Your task to perform on an android device: Open Youtube and go to the subscriptions tab Image 0: 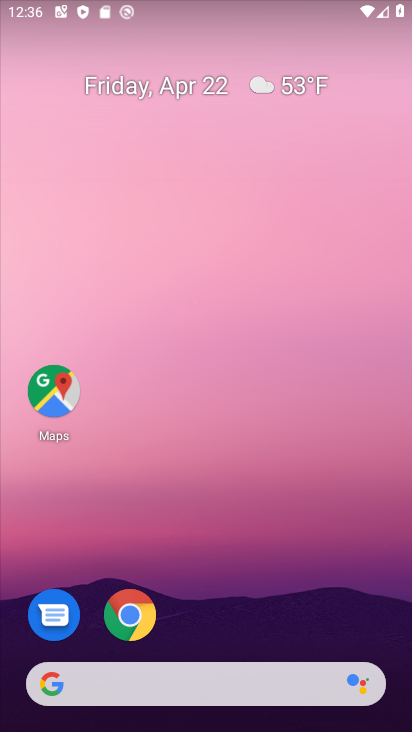
Step 0: drag from (363, 607) to (395, 164)
Your task to perform on an android device: Open Youtube and go to the subscriptions tab Image 1: 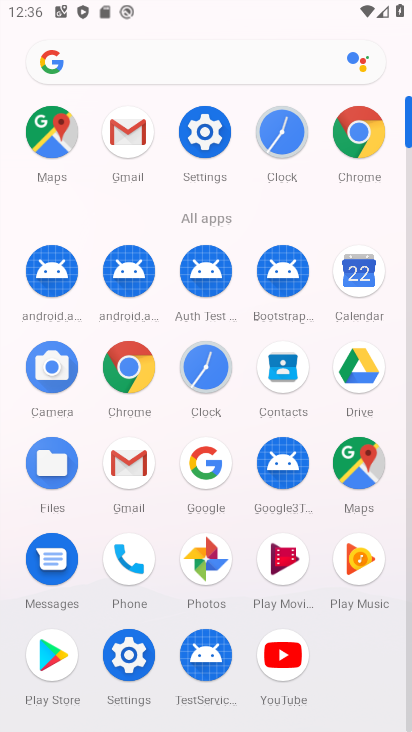
Step 1: click (286, 653)
Your task to perform on an android device: Open Youtube and go to the subscriptions tab Image 2: 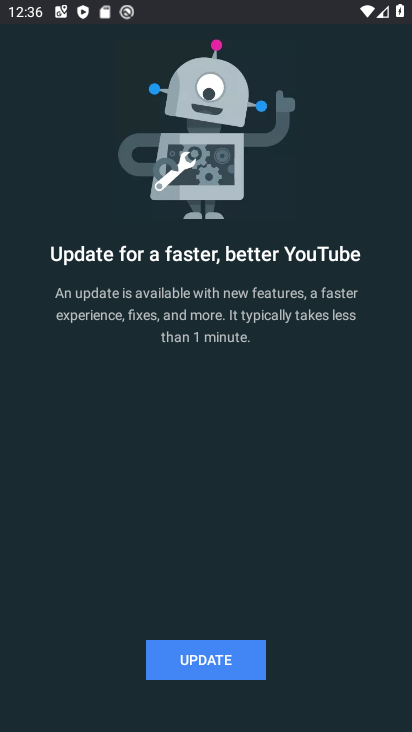
Step 2: click (203, 663)
Your task to perform on an android device: Open Youtube and go to the subscriptions tab Image 3: 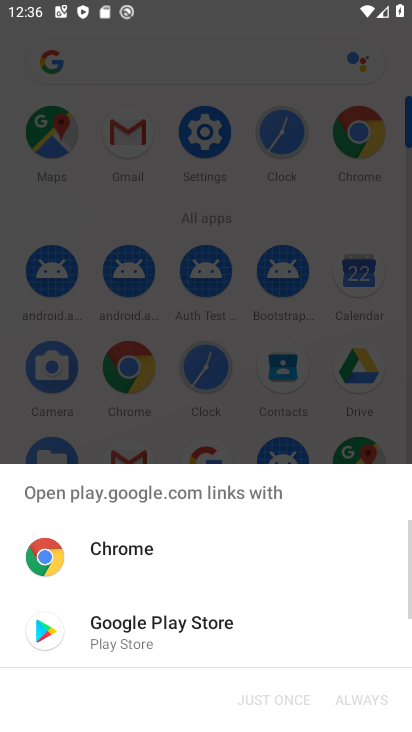
Step 3: click (130, 631)
Your task to perform on an android device: Open Youtube and go to the subscriptions tab Image 4: 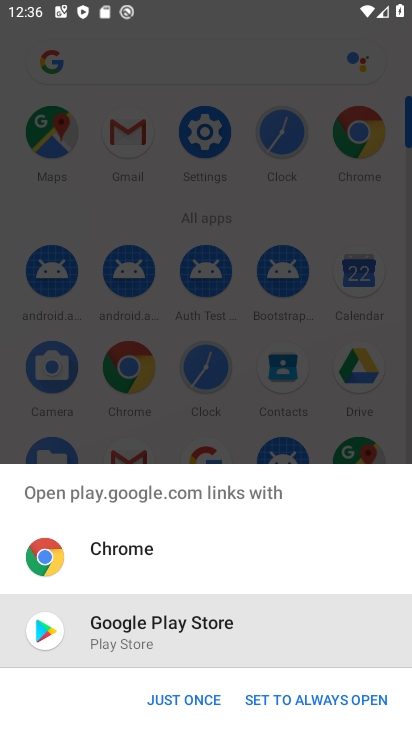
Step 4: click (179, 694)
Your task to perform on an android device: Open Youtube and go to the subscriptions tab Image 5: 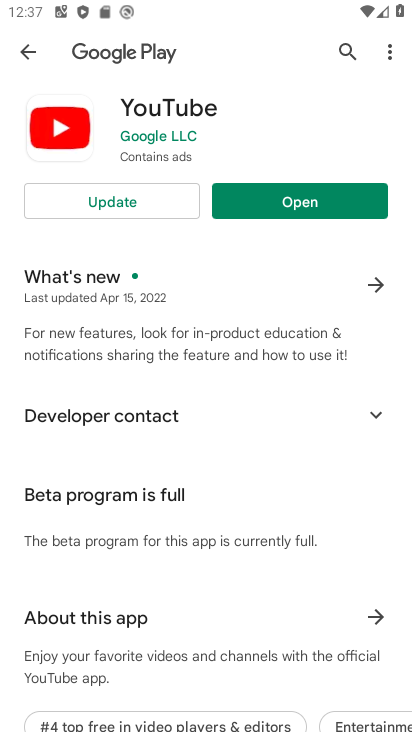
Step 5: click (100, 201)
Your task to perform on an android device: Open Youtube and go to the subscriptions tab Image 6: 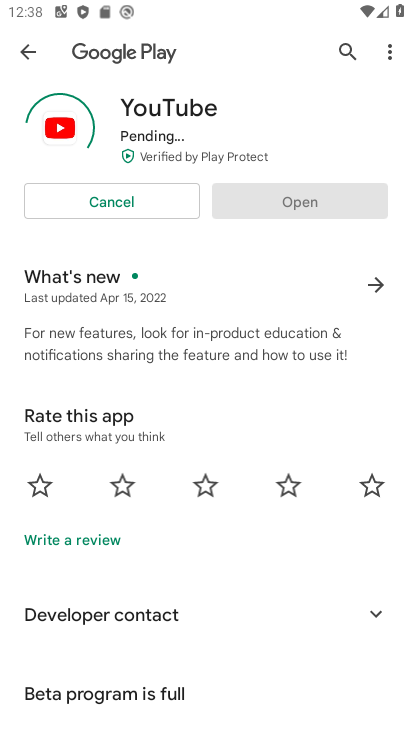
Step 6: click (30, 52)
Your task to perform on an android device: Open Youtube and go to the subscriptions tab Image 7: 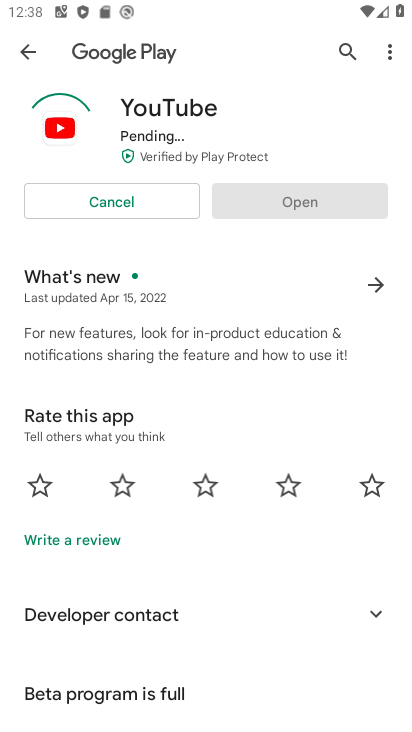
Step 7: click (23, 51)
Your task to perform on an android device: Open Youtube and go to the subscriptions tab Image 8: 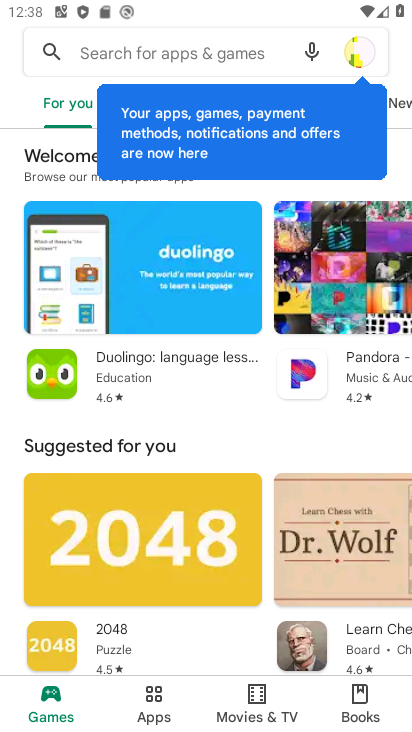
Step 8: click (209, 55)
Your task to perform on an android device: Open Youtube and go to the subscriptions tab Image 9: 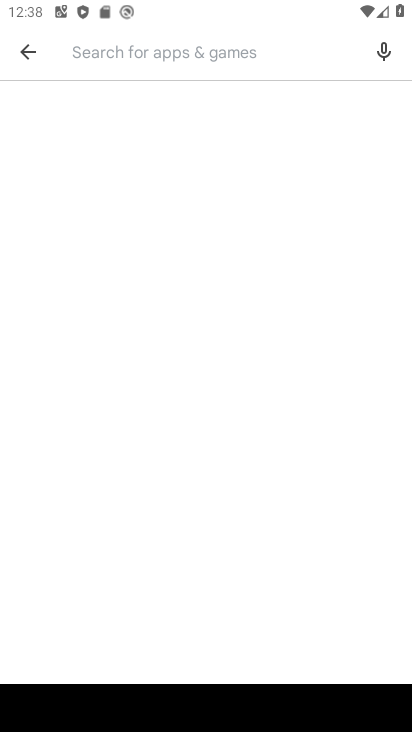
Step 9: type "youtube"
Your task to perform on an android device: Open Youtube and go to the subscriptions tab Image 10: 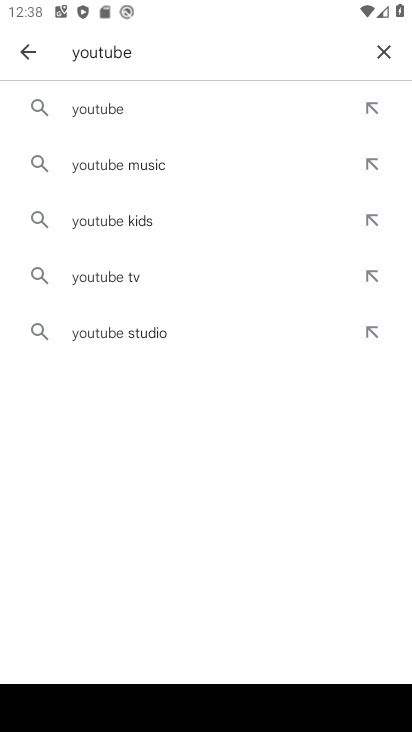
Step 10: click (115, 108)
Your task to perform on an android device: Open Youtube and go to the subscriptions tab Image 11: 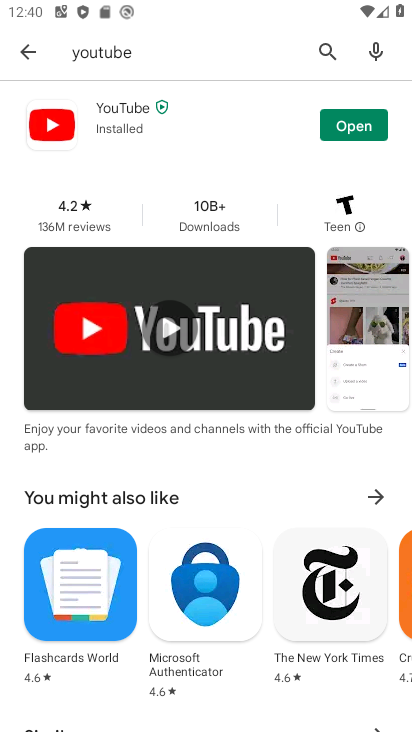
Step 11: click (348, 127)
Your task to perform on an android device: Open Youtube and go to the subscriptions tab Image 12: 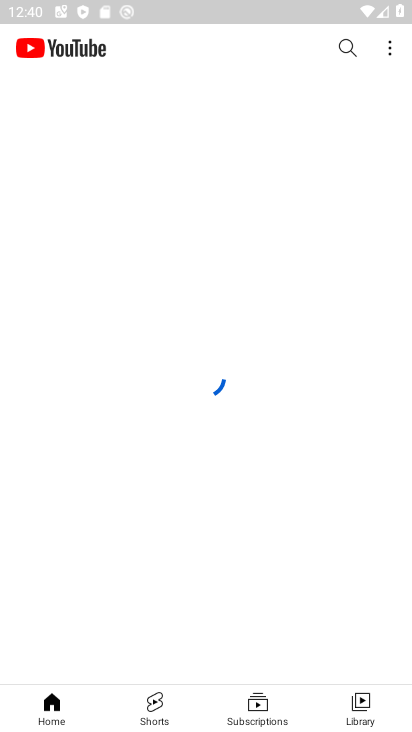
Step 12: click (260, 712)
Your task to perform on an android device: Open Youtube and go to the subscriptions tab Image 13: 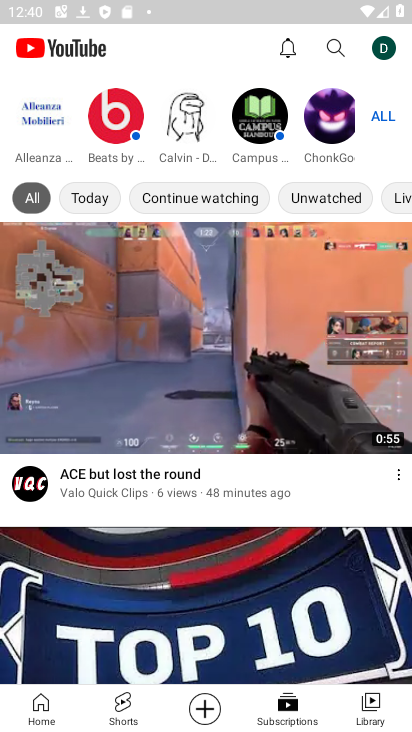
Step 13: click (284, 707)
Your task to perform on an android device: Open Youtube and go to the subscriptions tab Image 14: 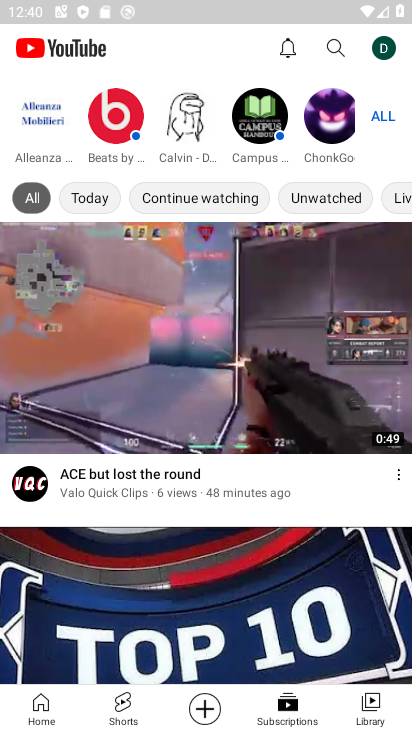
Step 14: task complete